Your task to perform on an android device: make emails show in primary in the gmail app Image 0: 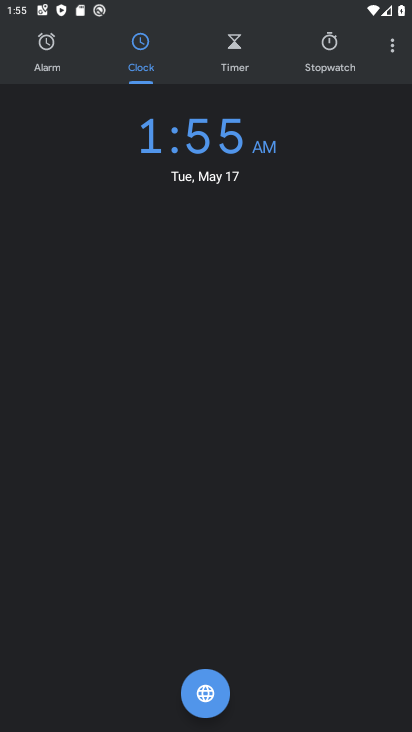
Step 0: drag from (310, 575) to (323, 171)
Your task to perform on an android device: make emails show in primary in the gmail app Image 1: 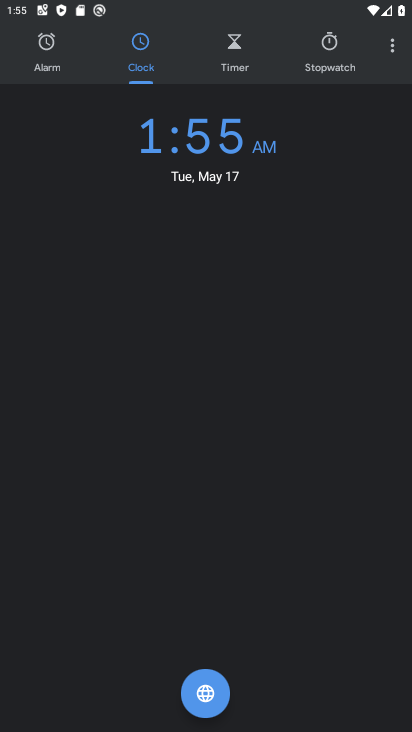
Step 1: press home button
Your task to perform on an android device: make emails show in primary in the gmail app Image 2: 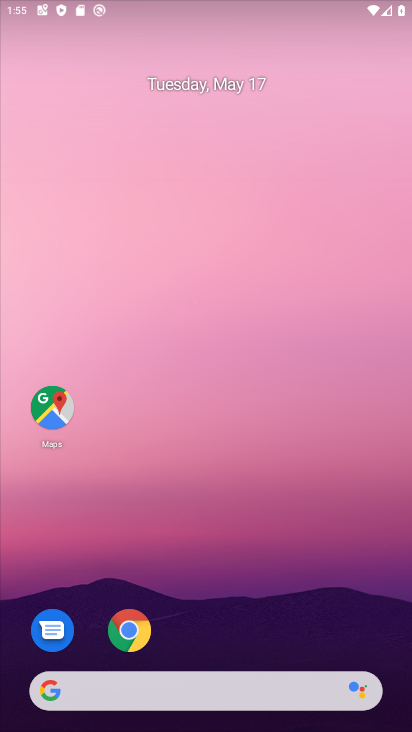
Step 2: drag from (353, 404) to (355, 179)
Your task to perform on an android device: make emails show in primary in the gmail app Image 3: 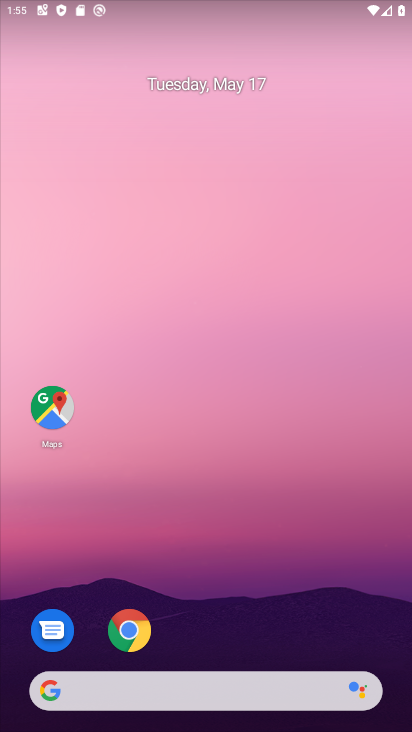
Step 3: drag from (358, 638) to (369, 214)
Your task to perform on an android device: make emails show in primary in the gmail app Image 4: 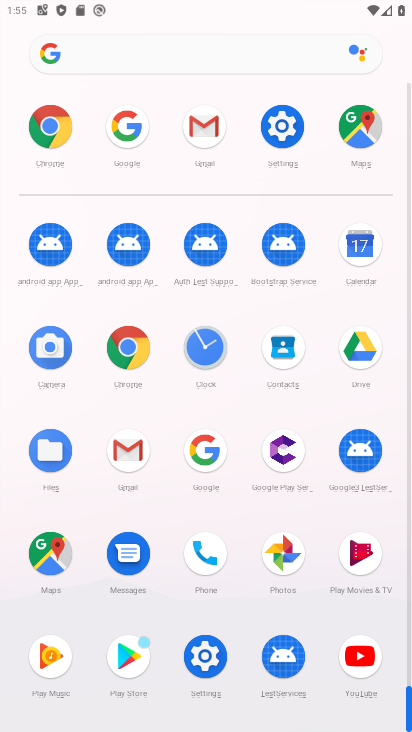
Step 4: click (113, 446)
Your task to perform on an android device: make emails show in primary in the gmail app Image 5: 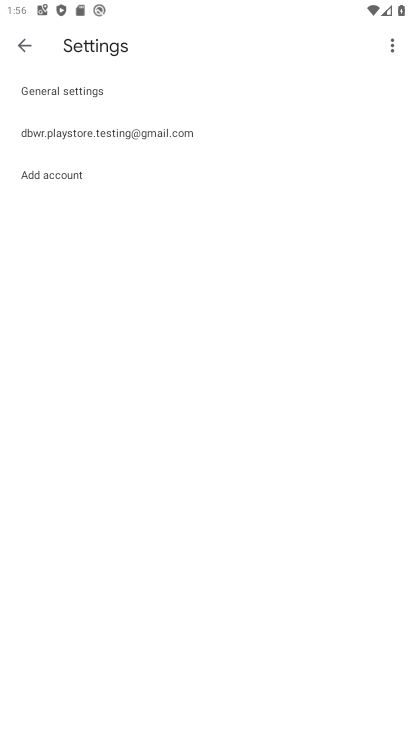
Step 5: click (120, 142)
Your task to perform on an android device: make emails show in primary in the gmail app Image 6: 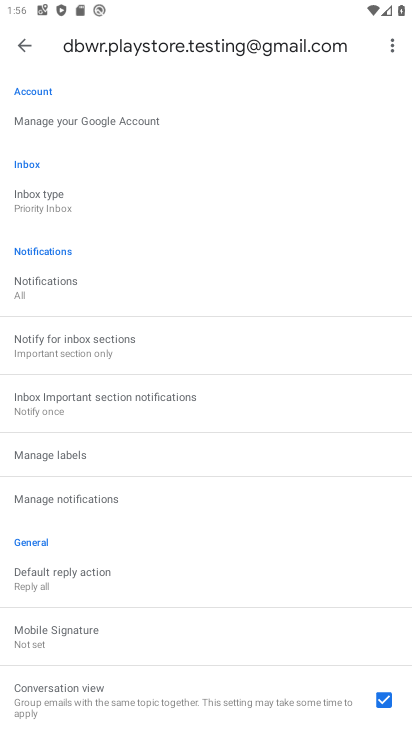
Step 6: drag from (198, 597) to (264, 220)
Your task to perform on an android device: make emails show in primary in the gmail app Image 7: 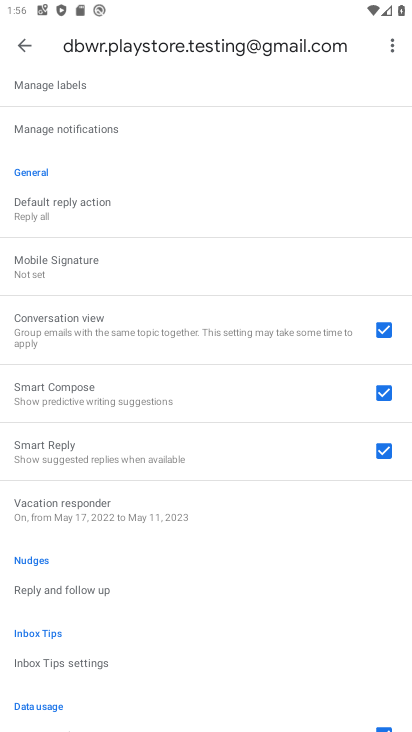
Step 7: drag from (243, 625) to (268, 240)
Your task to perform on an android device: make emails show in primary in the gmail app Image 8: 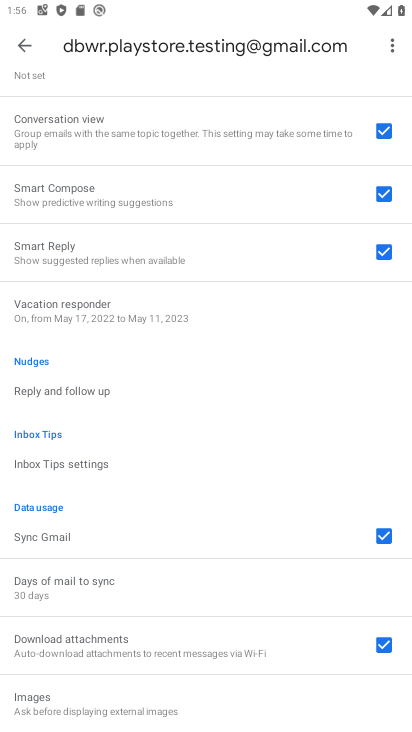
Step 8: drag from (212, 139) to (265, 668)
Your task to perform on an android device: make emails show in primary in the gmail app Image 9: 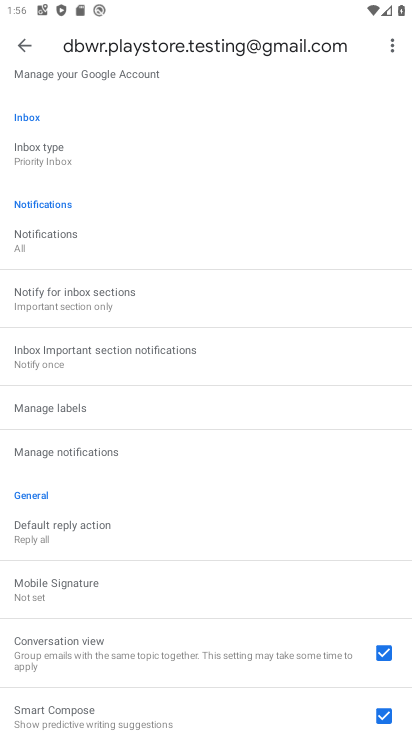
Step 9: click (88, 156)
Your task to perform on an android device: make emails show in primary in the gmail app Image 10: 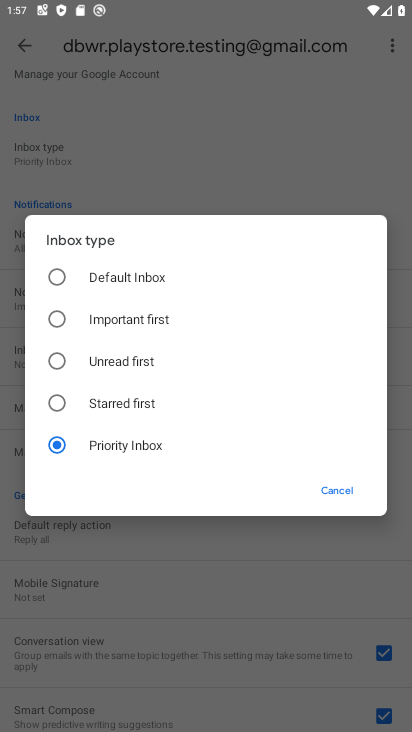
Step 10: click (334, 490)
Your task to perform on an android device: make emails show in primary in the gmail app Image 11: 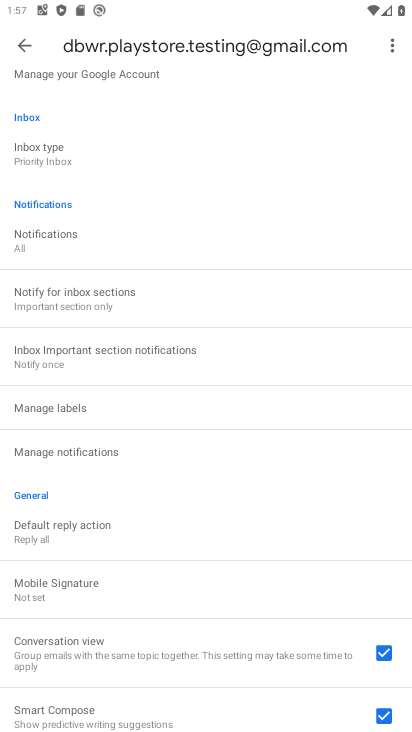
Step 11: task complete